Your task to perform on an android device: What's on my calendar tomorrow? Image 0: 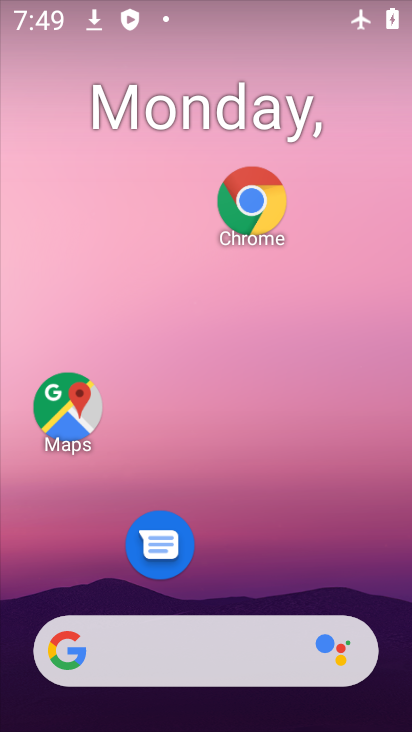
Step 0: drag from (225, 567) to (235, 151)
Your task to perform on an android device: What's on my calendar tomorrow? Image 1: 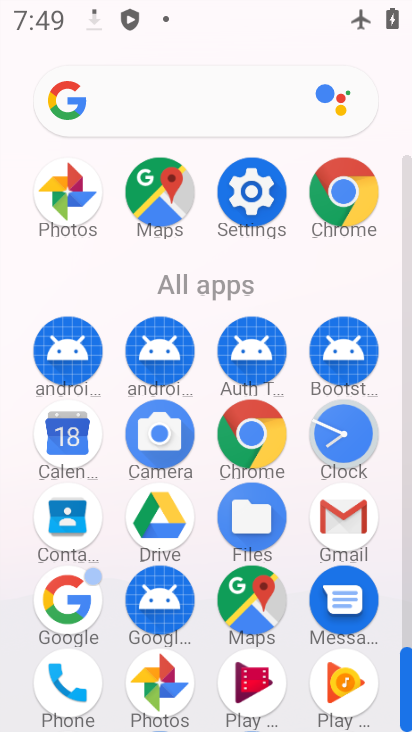
Step 1: click (46, 455)
Your task to perform on an android device: What's on my calendar tomorrow? Image 2: 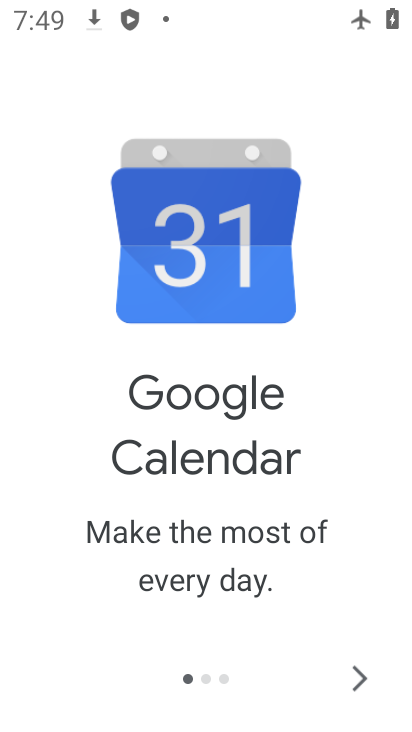
Step 2: click (371, 684)
Your task to perform on an android device: What's on my calendar tomorrow? Image 3: 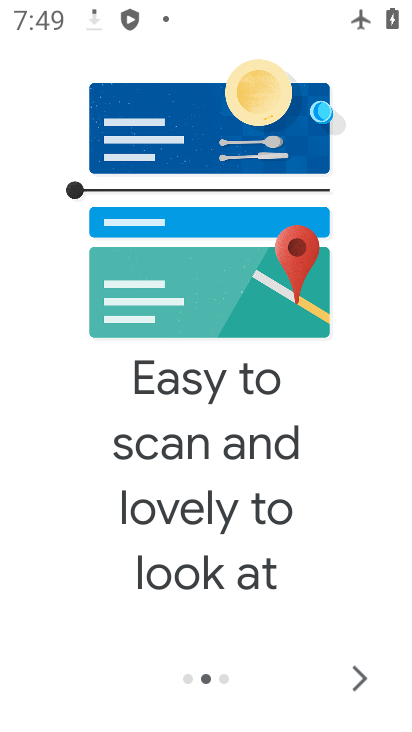
Step 3: click (370, 684)
Your task to perform on an android device: What's on my calendar tomorrow? Image 4: 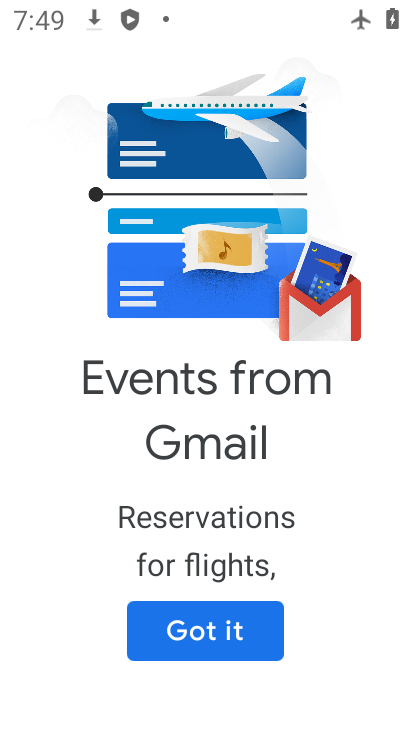
Step 4: click (260, 633)
Your task to perform on an android device: What's on my calendar tomorrow? Image 5: 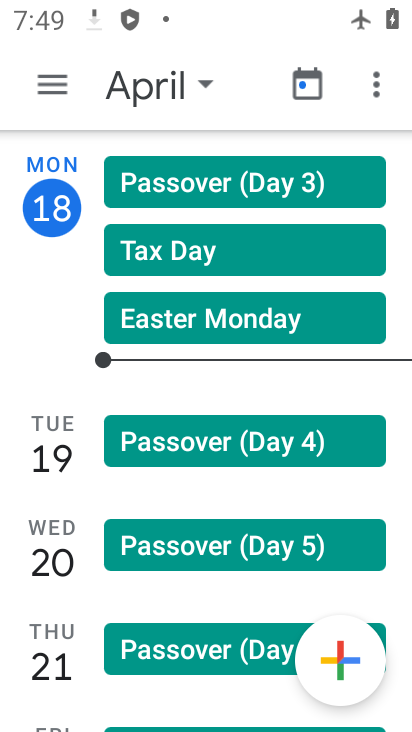
Step 5: click (191, 97)
Your task to perform on an android device: What's on my calendar tomorrow? Image 6: 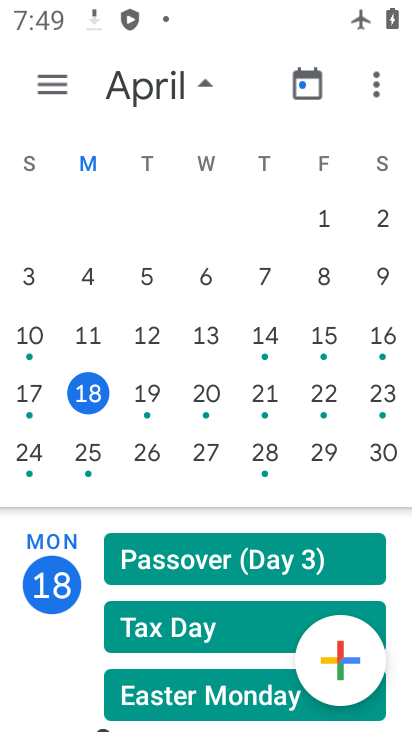
Step 6: click (142, 384)
Your task to perform on an android device: What's on my calendar tomorrow? Image 7: 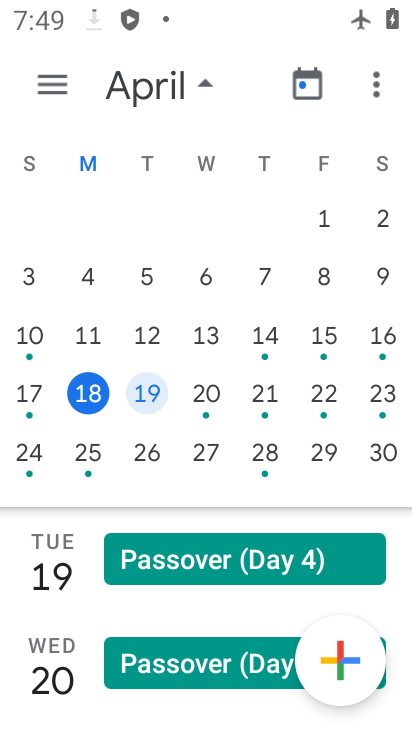
Step 7: drag from (187, 624) to (208, 465)
Your task to perform on an android device: What's on my calendar tomorrow? Image 8: 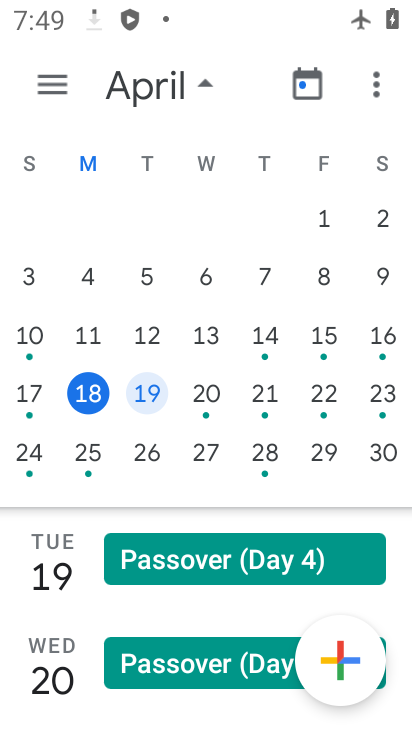
Step 8: click (172, 401)
Your task to perform on an android device: What's on my calendar tomorrow? Image 9: 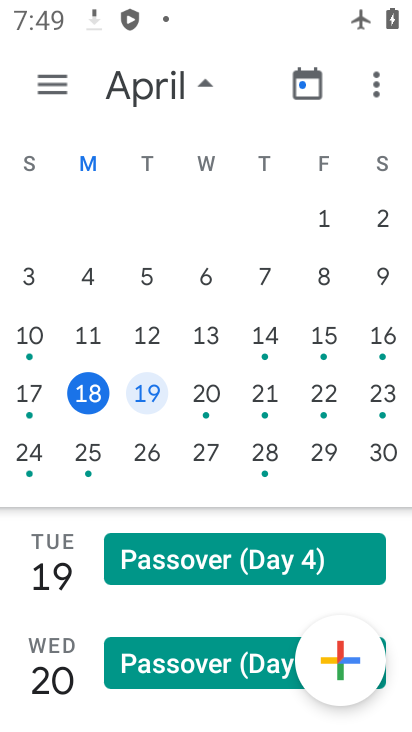
Step 9: click (215, 545)
Your task to perform on an android device: What's on my calendar tomorrow? Image 10: 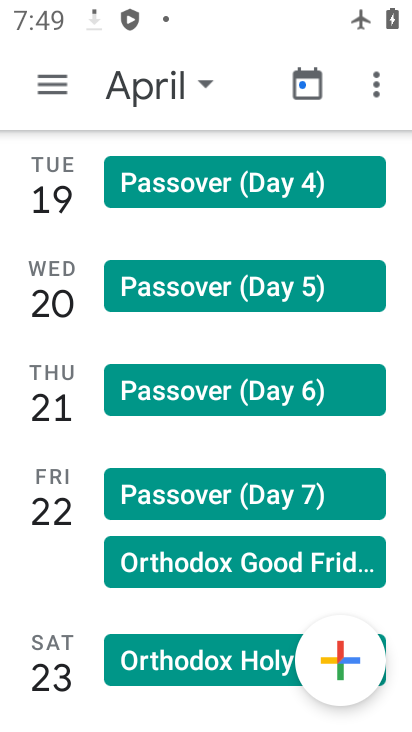
Step 10: task complete